Your task to perform on an android device: Go to wifi settings Image 0: 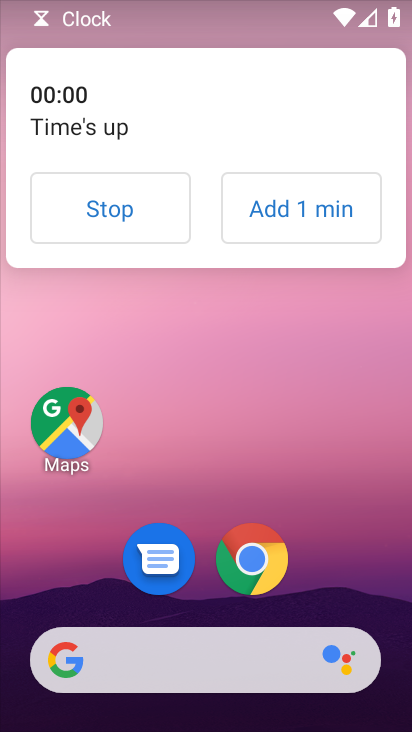
Step 0: drag from (198, 593) to (210, 166)
Your task to perform on an android device: Go to wifi settings Image 1: 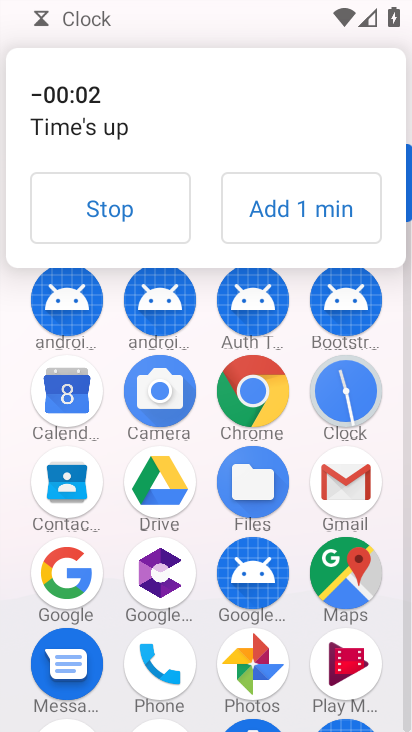
Step 1: click (103, 198)
Your task to perform on an android device: Go to wifi settings Image 2: 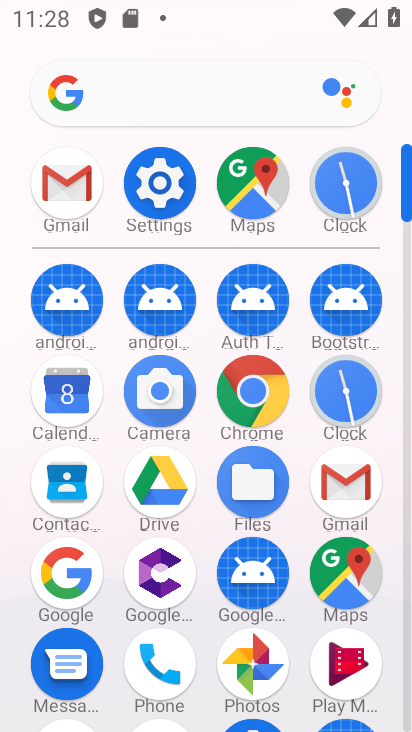
Step 2: click (183, 191)
Your task to perform on an android device: Go to wifi settings Image 3: 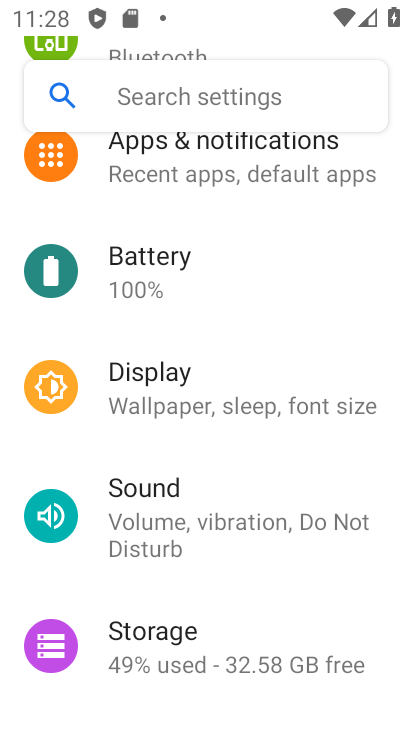
Step 3: drag from (183, 193) to (191, 606)
Your task to perform on an android device: Go to wifi settings Image 4: 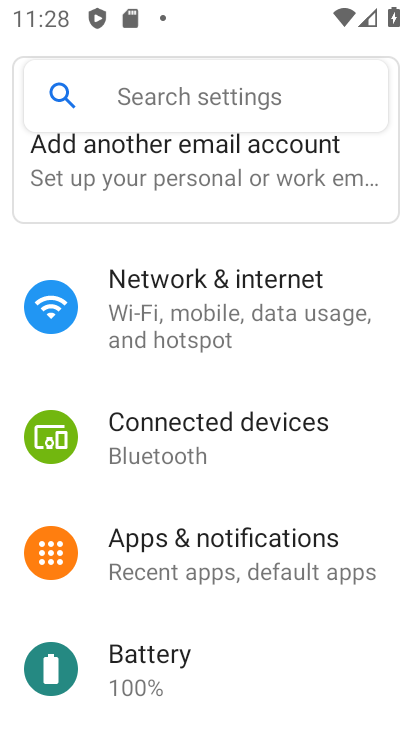
Step 4: click (193, 290)
Your task to perform on an android device: Go to wifi settings Image 5: 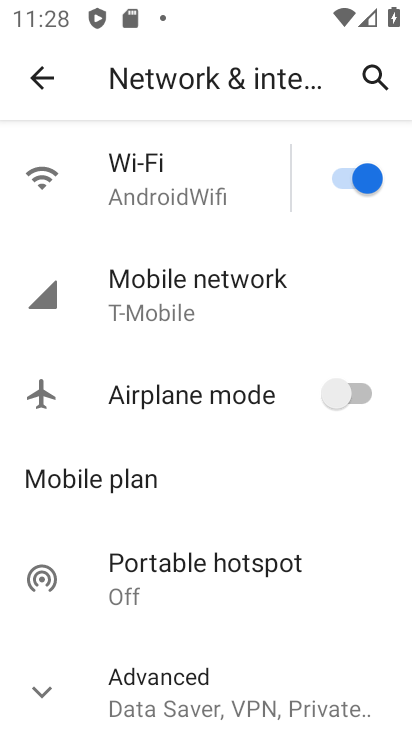
Step 5: click (193, 179)
Your task to perform on an android device: Go to wifi settings Image 6: 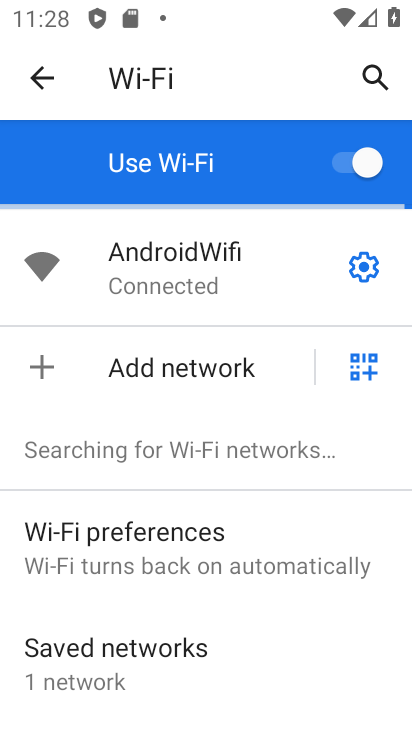
Step 6: task complete